Your task to perform on an android device: Search for vegetarian restaurants on Maps Image 0: 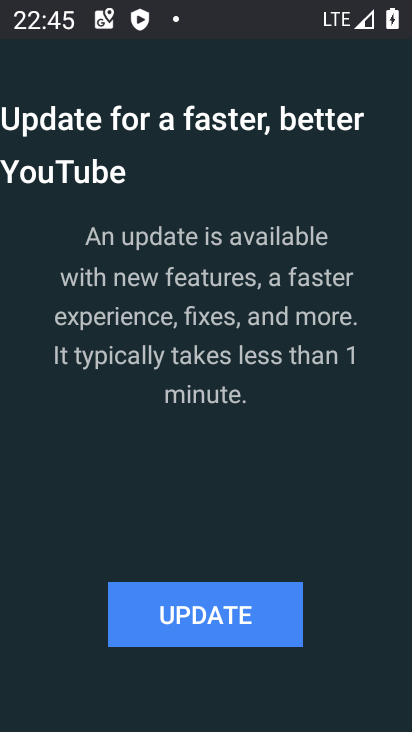
Step 0: press back button
Your task to perform on an android device: Search for vegetarian restaurants on Maps Image 1: 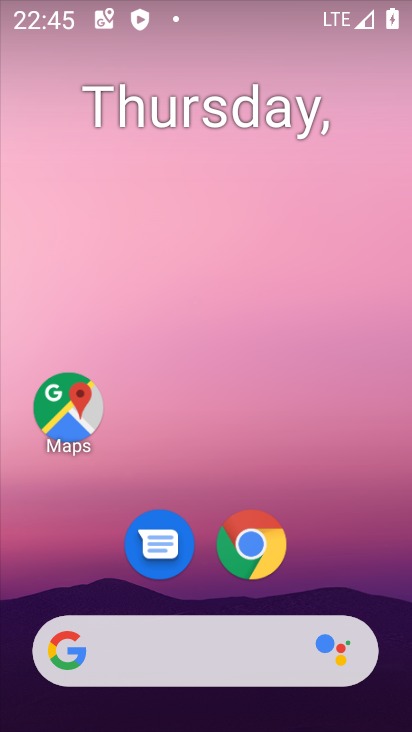
Step 1: click (70, 391)
Your task to perform on an android device: Search for vegetarian restaurants on Maps Image 2: 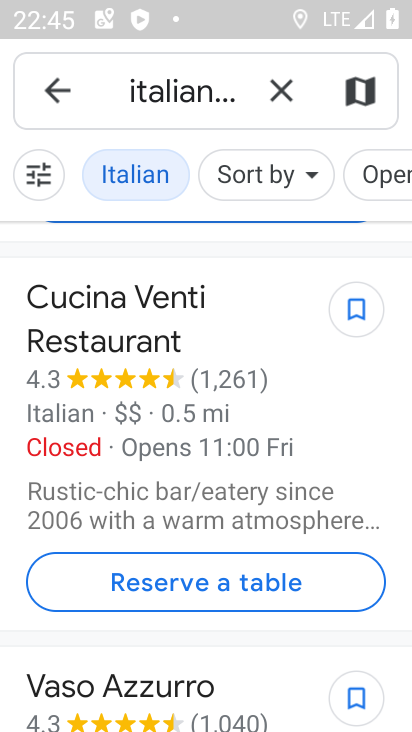
Step 2: click (284, 92)
Your task to perform on an android device: Search for vegetarian restaurants on Maps Image 3: 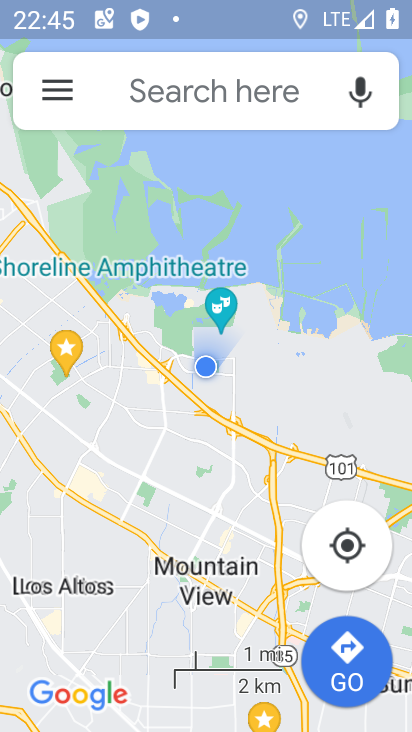
Step 3: click (284, 92)
Your task to perform on an android device: Search for vegetarian restaurants on Maps Image 4: 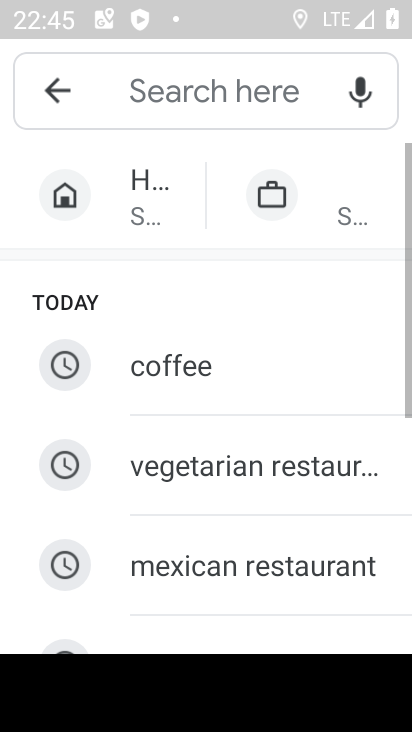
Step 4: drag from (158, 596) to (165, 201)
Your task to perform on an android device: Search for vegetarian restaurants on Maps Image 5: 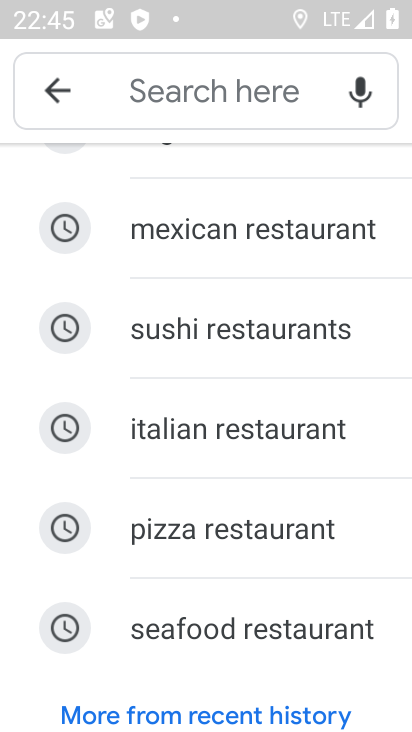
Step 5: drag from (215, 640) to (174, 536)
Your task to perform on an android device: Search for vegetarian restaurants on Maps Image 6: 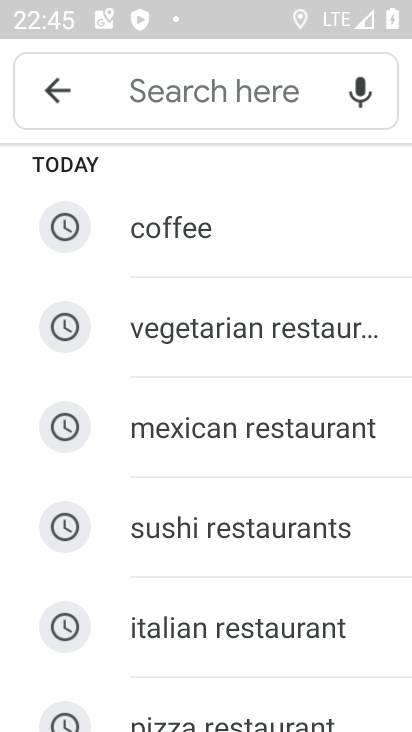
Step 6: click (190, 334)
Your task to perform on an android device: Search for vegetarian restaurants on Maps Image 7: 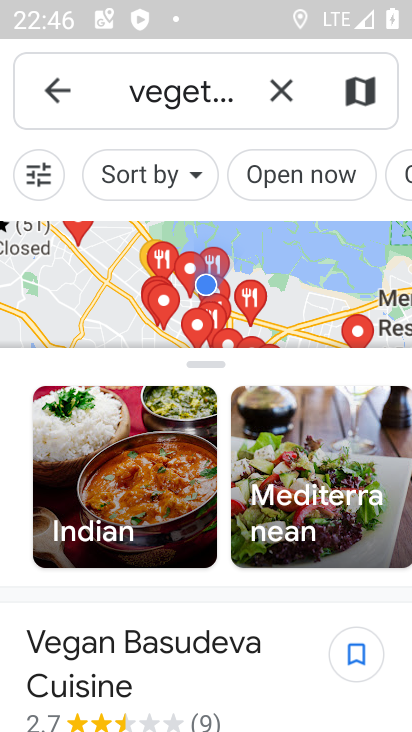
Step 7: drag from (142, 686) to (181, 245)
Your task to perform on an android device: Search for vegetarian restaurants on Maps Image 8: 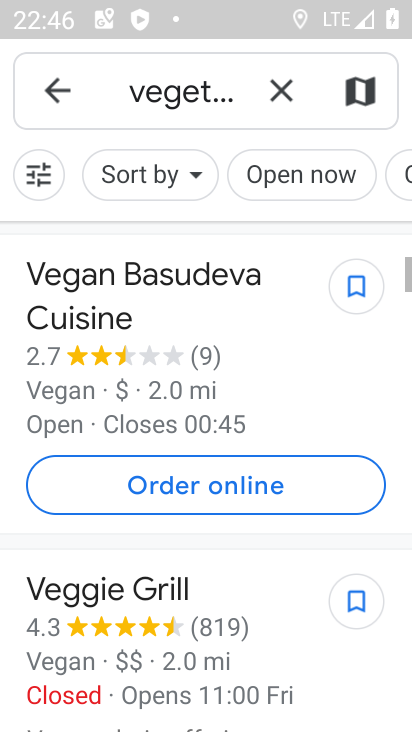
Step 8: drag from (149, 603) to (186, 402)
Your task to perform on an android device: Search for vegetarian restaurants on Maps Image 9: 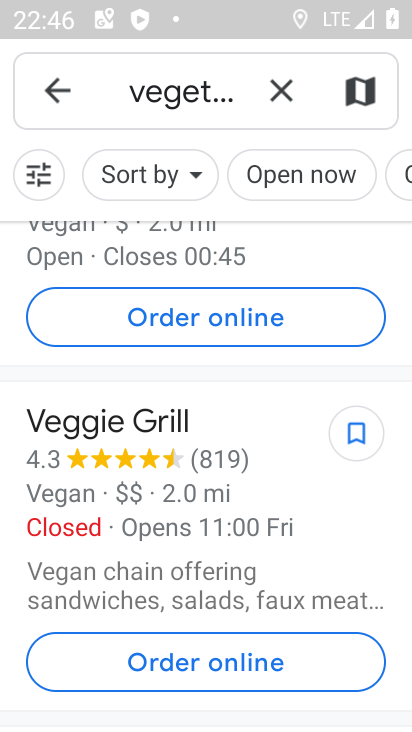
Step 9: drag from (135, 691) to (117, 244)
Your task to perform on an android device: Search for vegetarian restaurants on Maps Image 10: 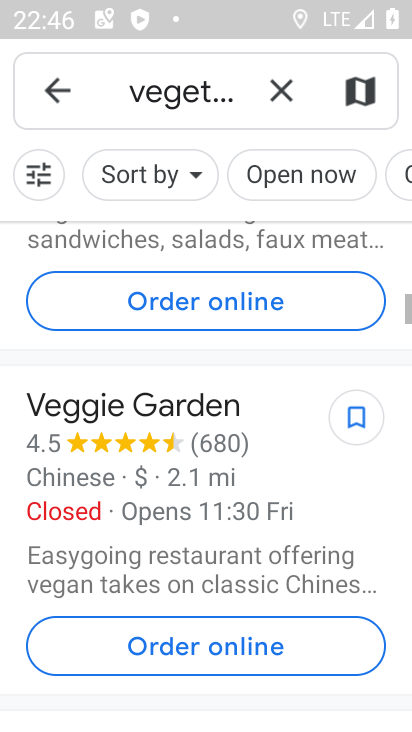
Step 10: drag from (129, 511) to (209, 181)
Your task to perform on an android device: Search for vegetarian restaurants on Maps Image 11: 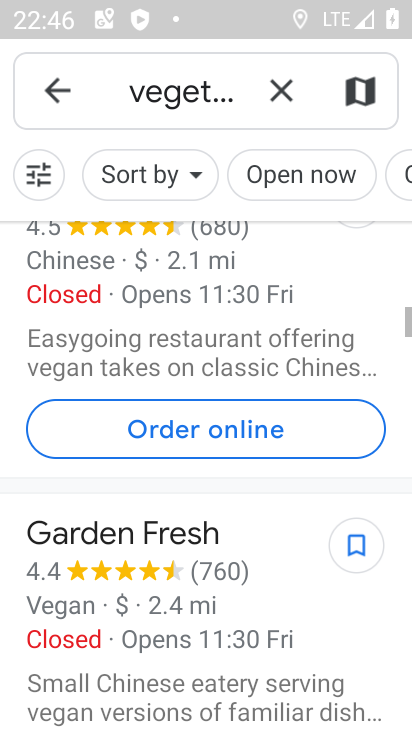
Step 11: drag from (118, 671) to (163, 215)
Your task to perform on an android device: Search for vegetarian restaurants on Maps Image 12: 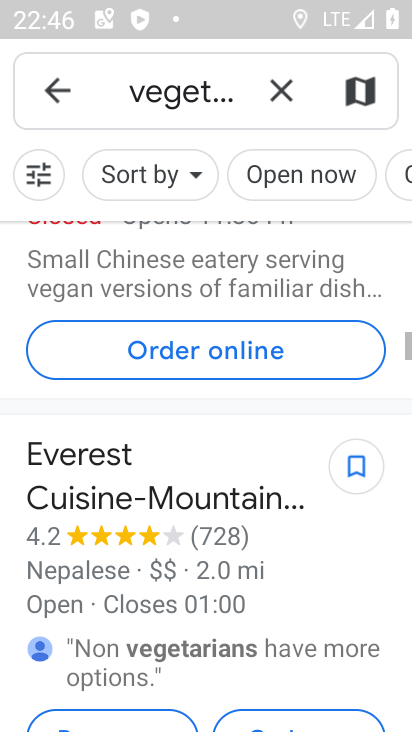
Step 12: drag from (100, 676) to (157, 281)
Your task to perform on an android device: Search for vegetarian restaurants on Maps Image 13: 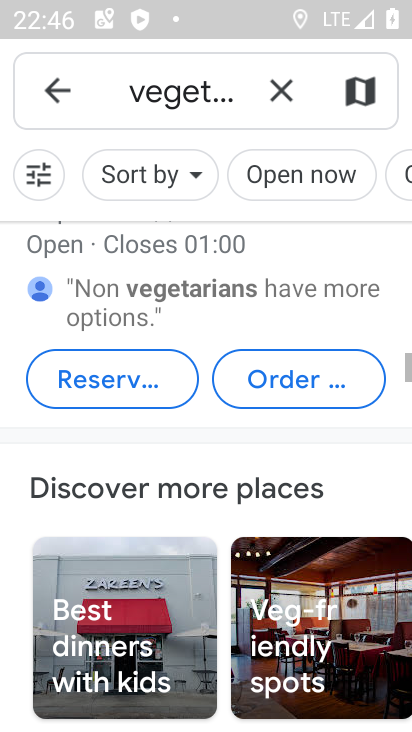
Step 13: drag from (121, 707) to (186, 258)
Your task to perform on an android device: Search for vegetarian restaurants on Maps Image 14: 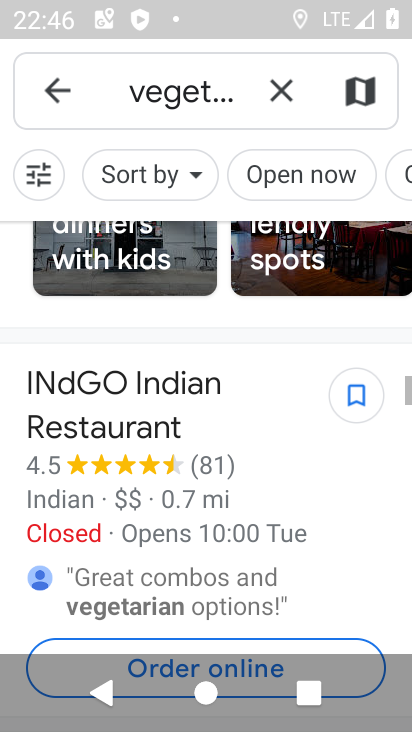
Step 14: drag from (111, 570) to (175, 223)
Your task to perform on an android device: Search for vegetarian restaurants on Maps Image 15: 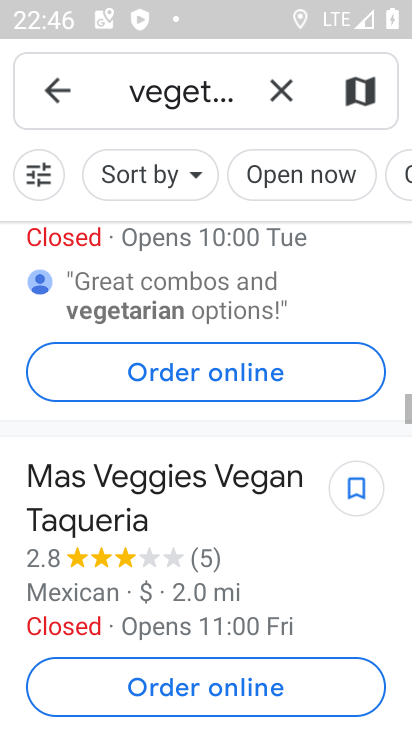
Step 15: drag from (132, 627) to (195, 260)
Your task to perform on an android device: Search for vegetarian restaurants on Maps Image 16: 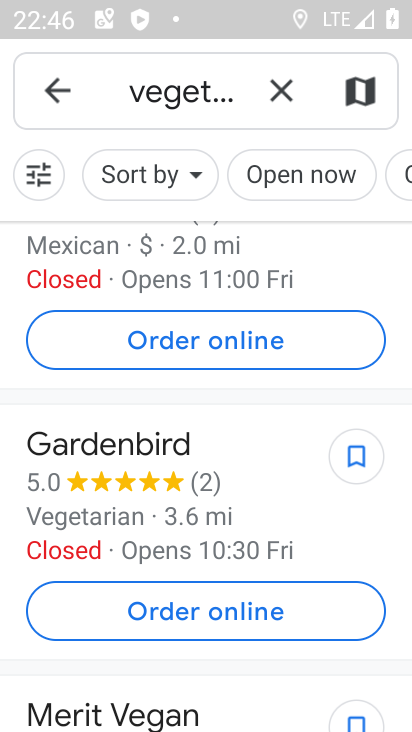
Step 16: click (155, 501)
Your task to perform on an android device: Search for vegetarian restaurants on Maps Image 17: 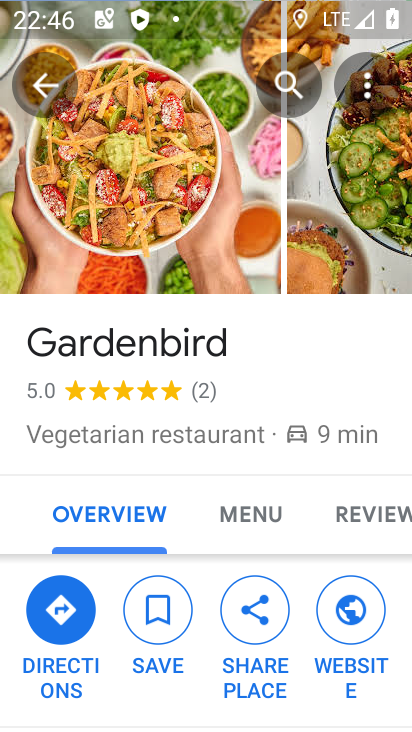
Step 17: task complete